Your task to perform on an android device: check battery use Image 0: 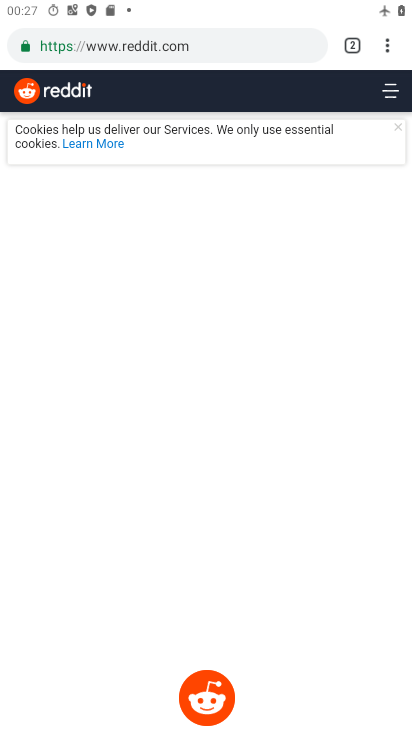
Step 0: press home button
Your task to perform on an android device: check battery use Image 1: 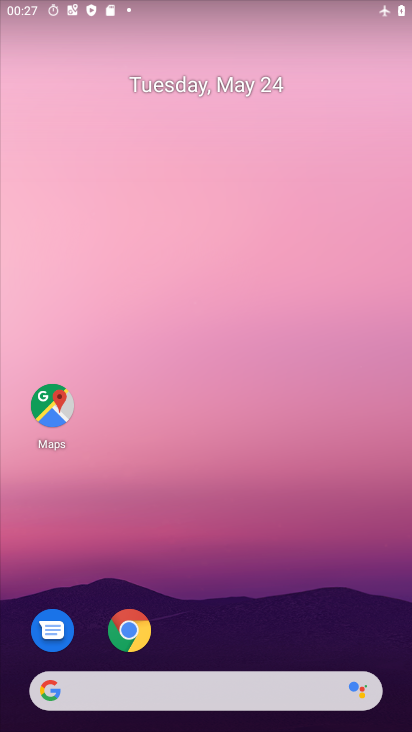
Step 1: drag from (235, 634) to (295, 55)
Your task to perform on an android device: check battery use Image 2: 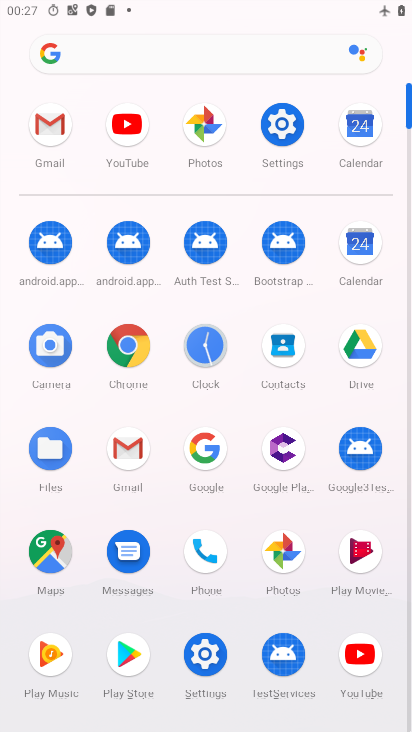
Step 2: click (279, 123)
Your task to perform on an android device: check battery use Image 3: 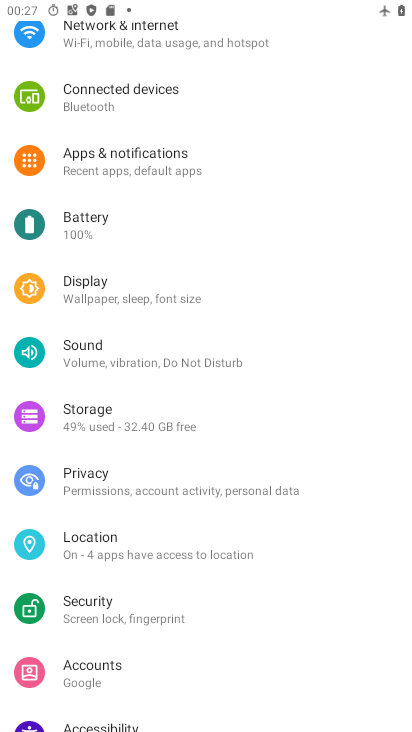
Step 3: click (74, 226)
Your task to perform on an android device: check battery use Image 4: 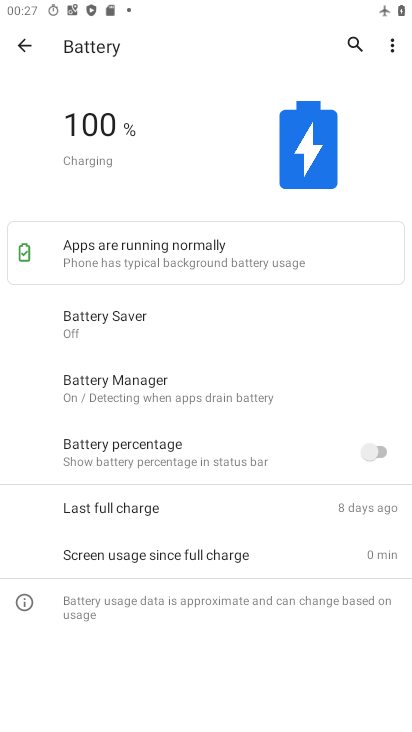
Step 4: click (394, 45)
Your task to perform on an android device: check battery use Image 5: 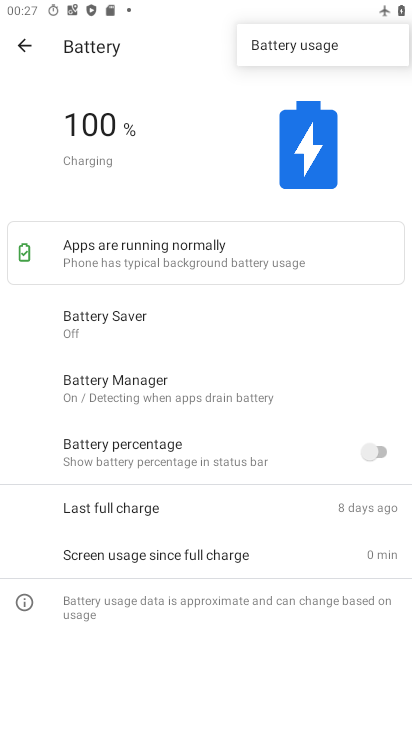
Step 5: click (314, 47)
Your task to perform on an android device: check battery use Image 6: 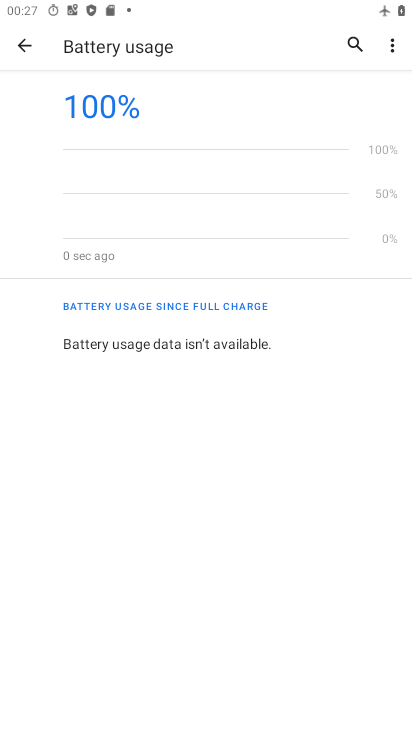
Step 6: task complete